Your task to perform on an android device: Open calendar and show me the third week of next month Image 0: 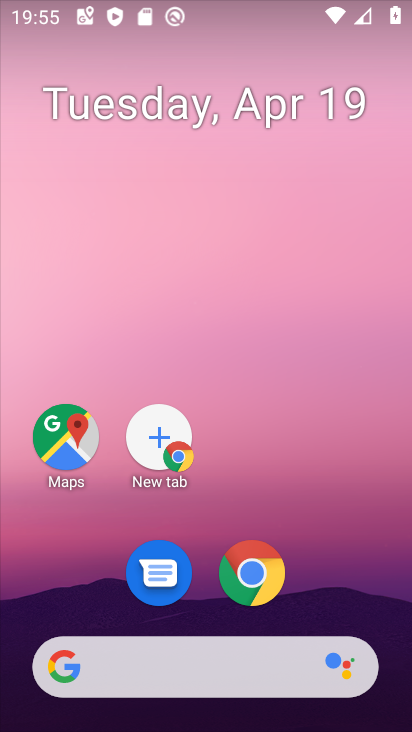
Step 0: drag from (327, 270) to (307, 113)
Your task to perform on an android device: Open calendar and show me the third week of next month Image 1: 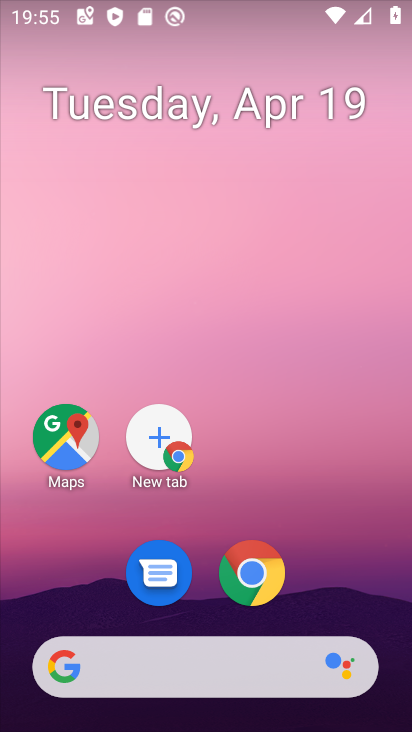
Step 1: drag from (331, 222) to (318, 78)
Your task to perform on an android device: Open calendar and show me the third week of next month Image 2: 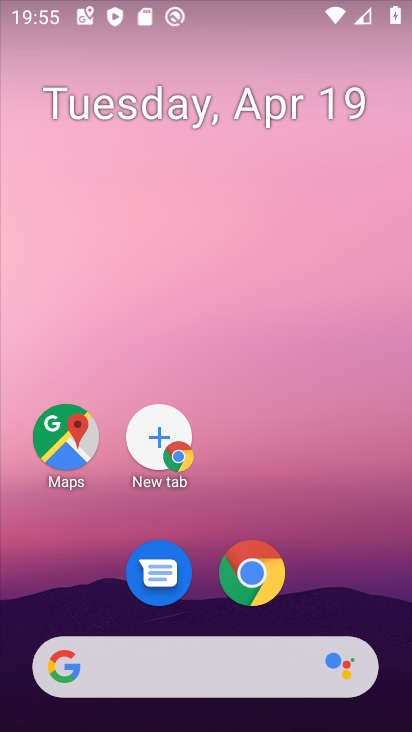
Step 2: click (303, 34)
Your task to perform on an android device: Open calendar and show me the third week of next month Image 3: 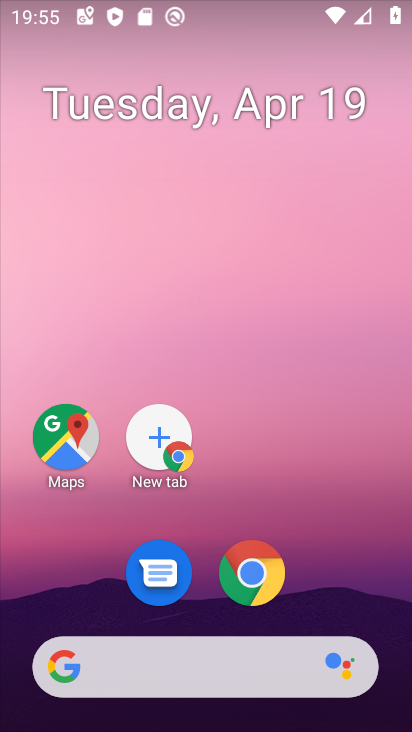
Step 3: drag from (372, 486) to (301, 101)
Your task to perform on an android device: Open calendar and show me the third week of next month Image 4: 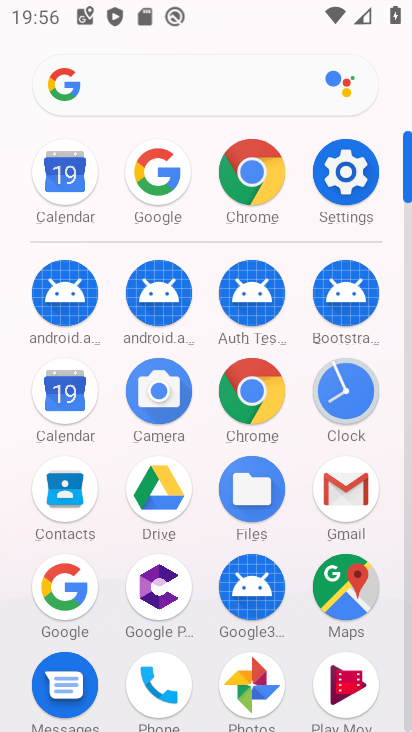
Step 4: click (50, 404)
Your task to perform on an android device: Open calendar and show me the third week of next month Image 5: 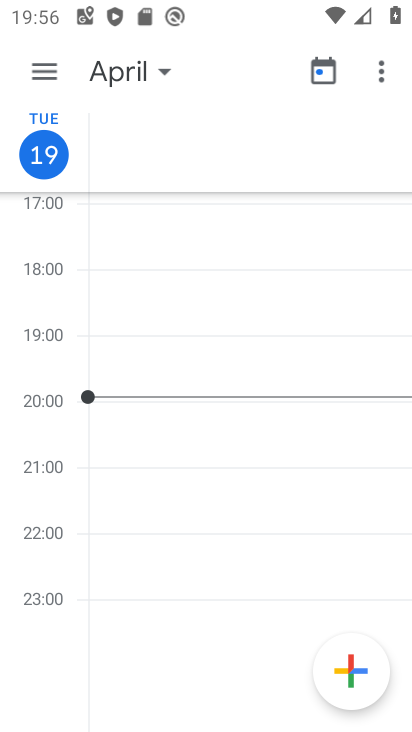
Step 5: click (160, 76)
Your task to perform on an android device: Open calendar and show me the third week of next month Image 6: 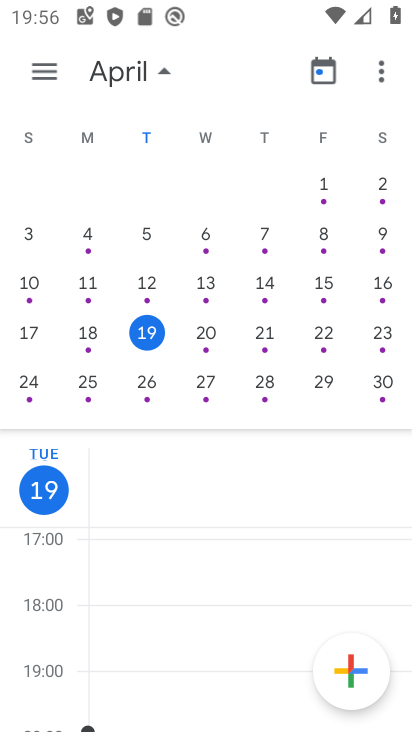
Step 6: drag from (394, 260) to (92, 222)
Your task to perform on an android device: Open calendar and show me the third week of next month Image 7: 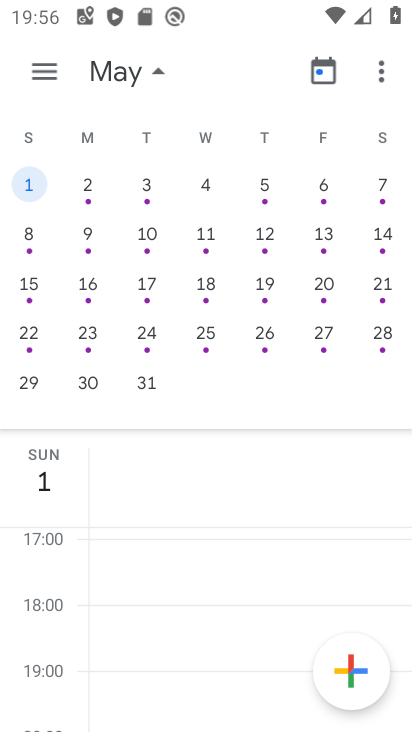
Step 7: click (202, 283)
Your task to perform on an android device: Open calendar and show me the third week of next month Image 8: 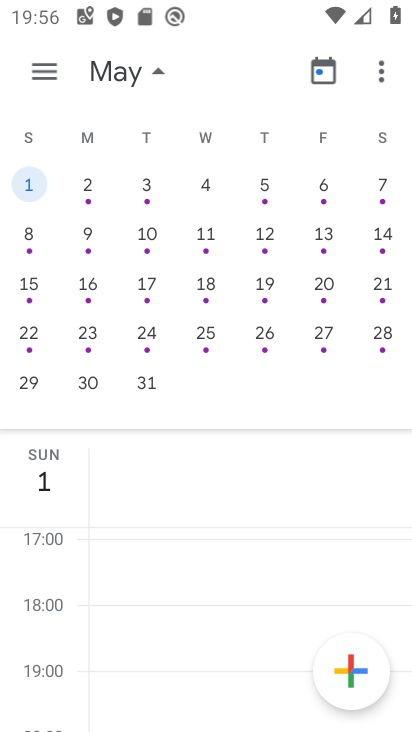
Step 8: click (207, 281)
Your task to perform on an android device: Open calendar and show me the third week of next month Image 9: 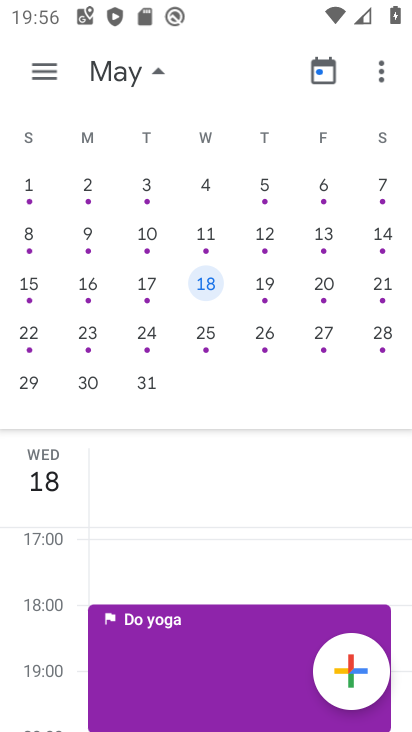
Step 9: task complete